Your task to perform on an android device: Search for vegetarian restaurants on Maps Image 0: 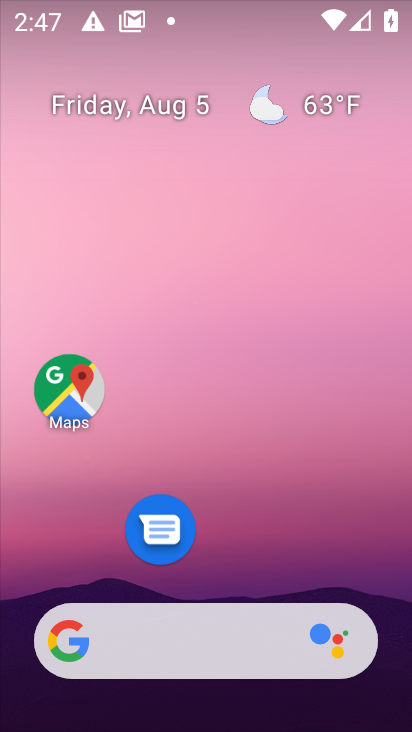
Step 0: click (93, 391)
Your task to perform on an android device: Search for vegetarian restaurants on Maps Image 1: 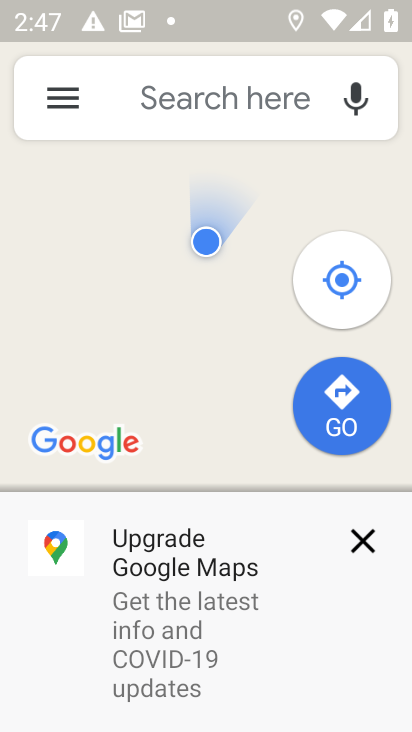
Step 1: click (226, 106)
Your task to perform on an android device: Search for vegetarian restaurants on Maps Image 2: 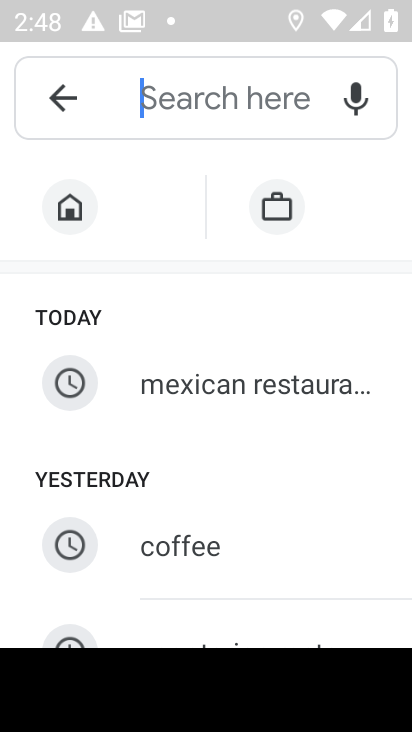
Step 2: drag from (221, 556) to (267, 107)
Your task to perform on an android device: Search for vegetarian restaurants on Maps Image 3: 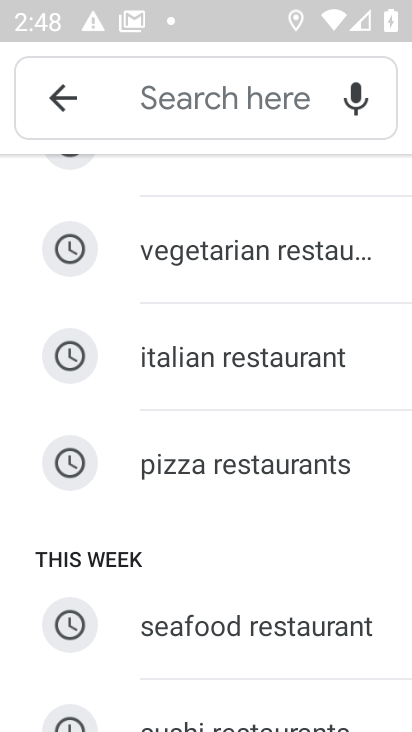
Step 3: click (318, 260)
Your task to perform on an android device: Search for vegetarian restaurants on Maps Image 4: 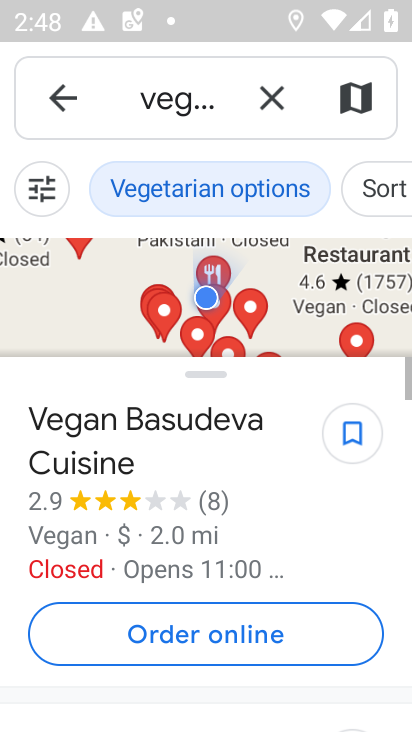
Step 4: task complete